Your task to perform on an android device: Turn on the flashlight Image 0: 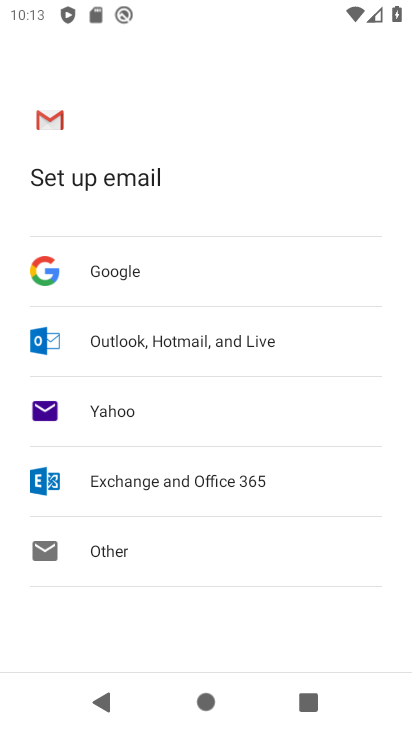
Step 0: press home button
Your task to perform on an android device: Turn on the flashlight Image 1: 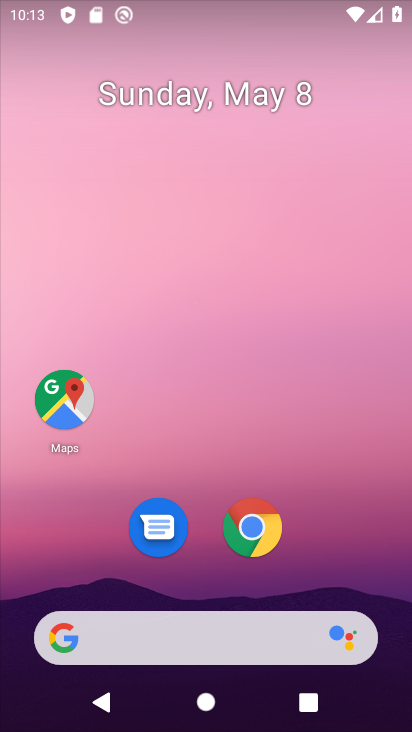
Step 1: drag from (326, 502) to (327, 78)
Your task to perform on an android device: Turn on the flashlight Image 2: 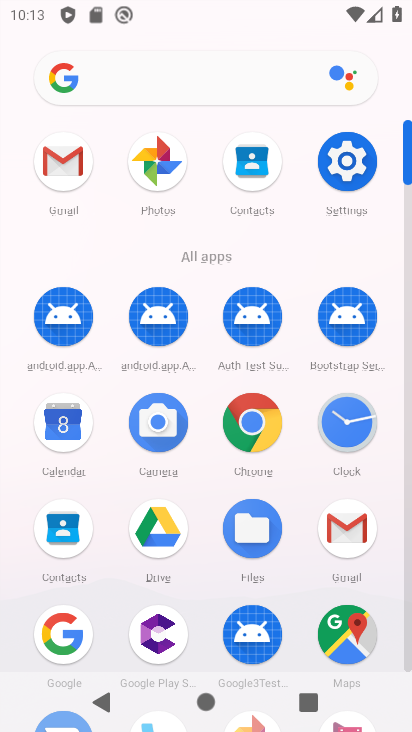
Step 2: click (322, 161)
Your task to perform on an android device: Turn on the flashlight Image 3: 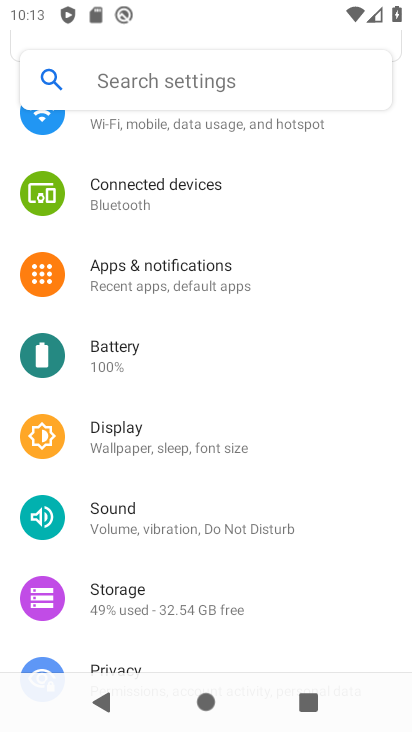
Step 3: click (137, 81)
Your task to perform on an android device: Turn on the flashlight Image 4: 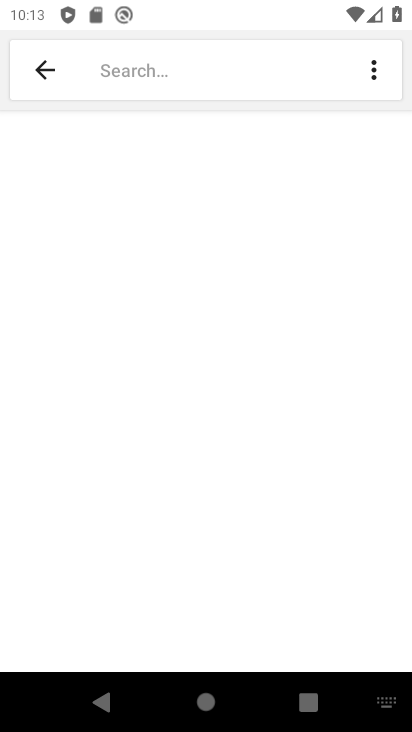
Step 4: type "flashlight"
Your task to perform on an android device: Turn on the flashlight Image 5: 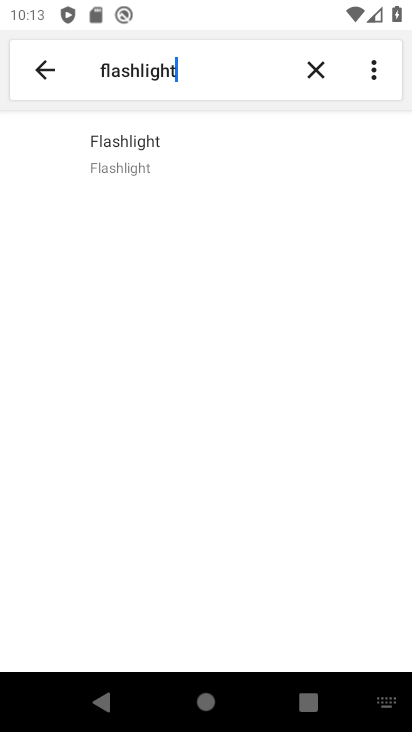
Step 5: click (138, 164)
Your task to perform on an android device: Turn on the flashlight Image 6: 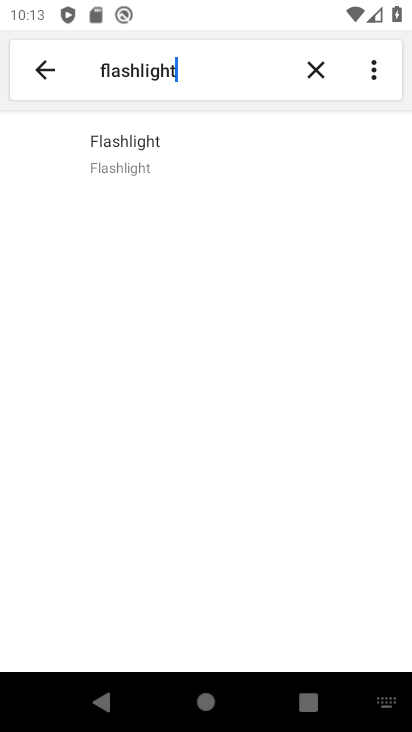
Step 6: click (141, 140)
Your task to perform on an android device: Turn on the flashlight Image 7: 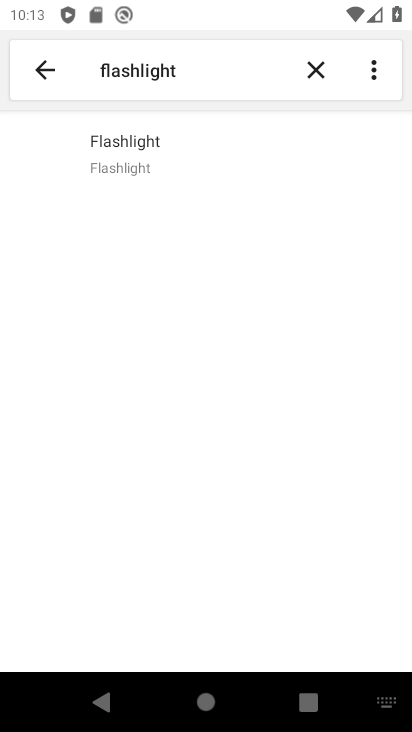
Step 7: task complete